Your task to perform on an android device: check out phone information Image 0: 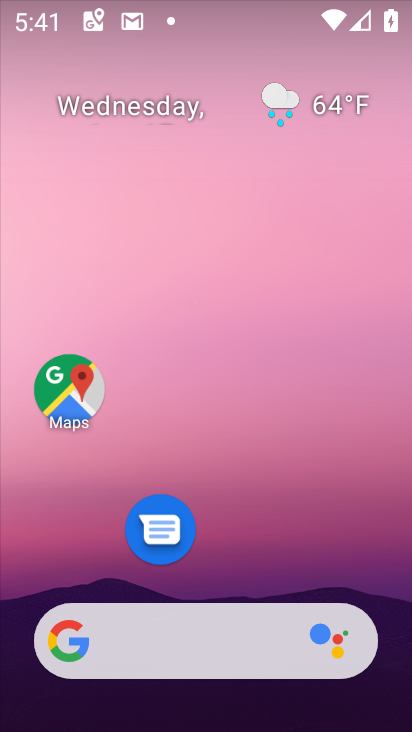
Step 0: drag from (213, 517) to (201, 178)
Your task to perform on an android device: check out phone information Image 1: 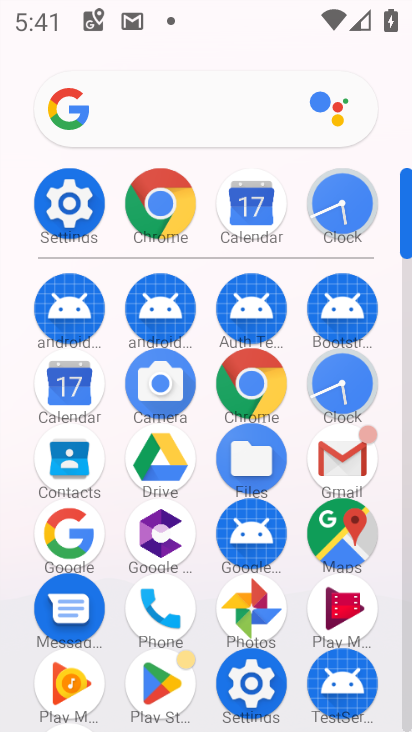
Step 1: click (77, 201)
Your task to perform on an android device: check out phone information Image 2: 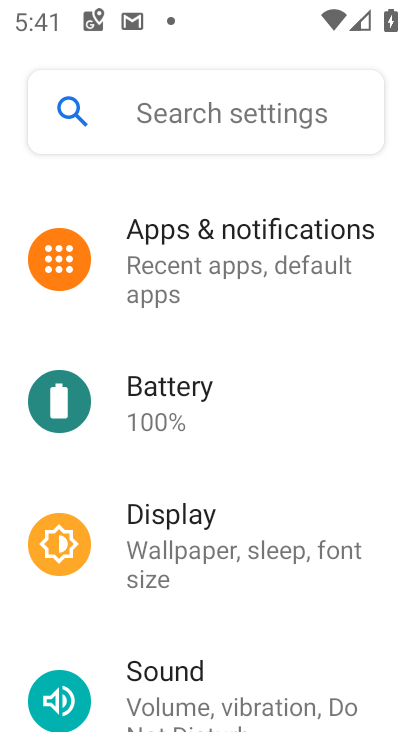
Step 2: drag from (237, 490) to (246, 257)
Your task to perform on an android device: check out phone information Image 3: 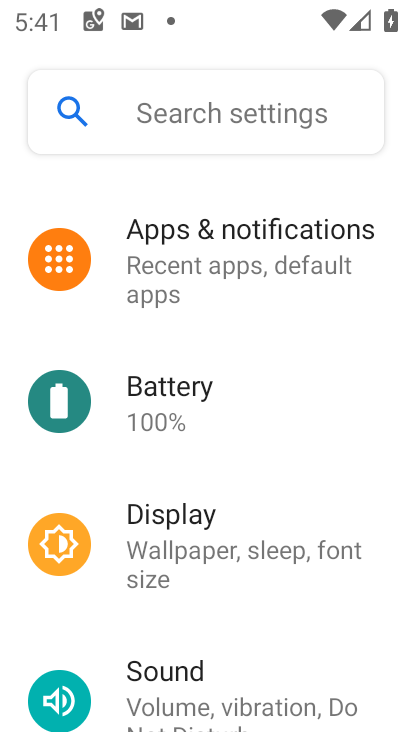
Step 3: drag from (176, 643) to (187, 276)
Your task to perform on an android device: check out phone information Image 4: 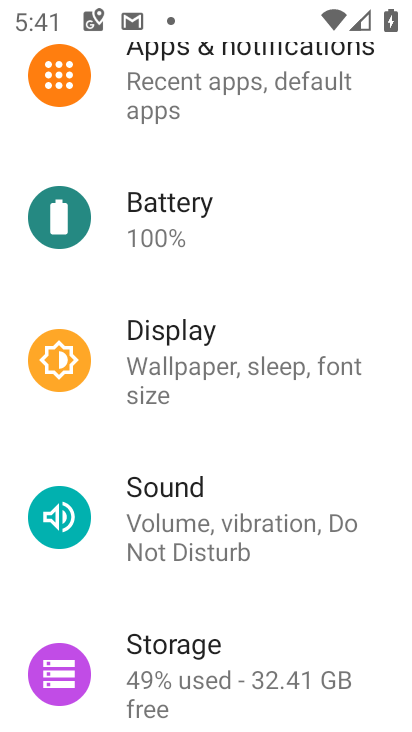
Step 4: drag from (214, 668) to (179, 173)
Your task to perform on an android device: check out phone information Image 5: 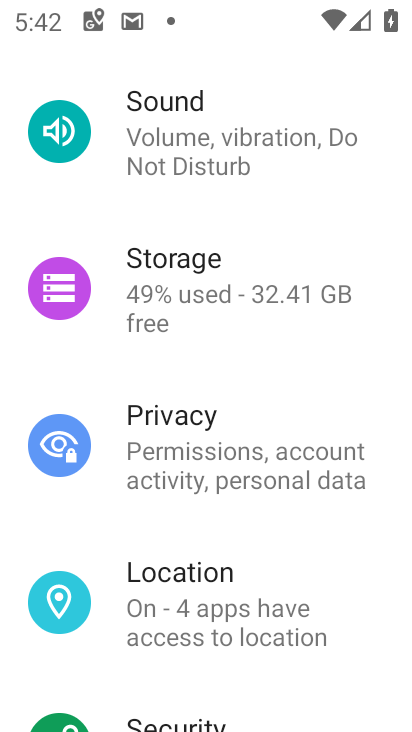
Step 5: drag from (231, 391) to (231, 233)
Your task to perform on an android device: check out phone information Image 6: 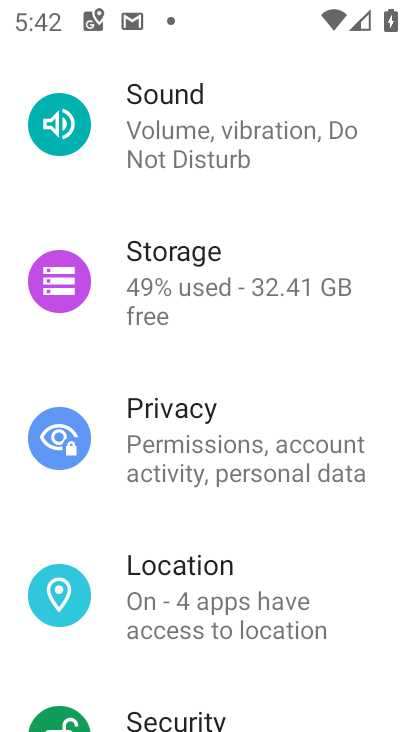
Step 6: drag from (195, 678) to (195, 278)
Your task to perform on an android device: check out phone information Image 7: 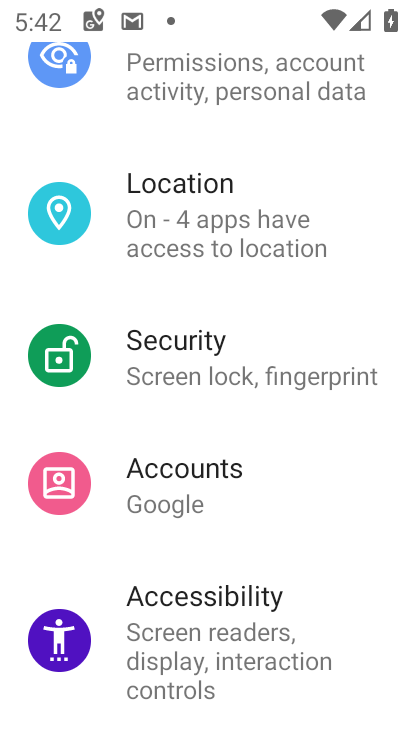
Step 7: drag from (341, 628) to (318, 388)
Your task to perform on an android device: check out phone information Image 8: 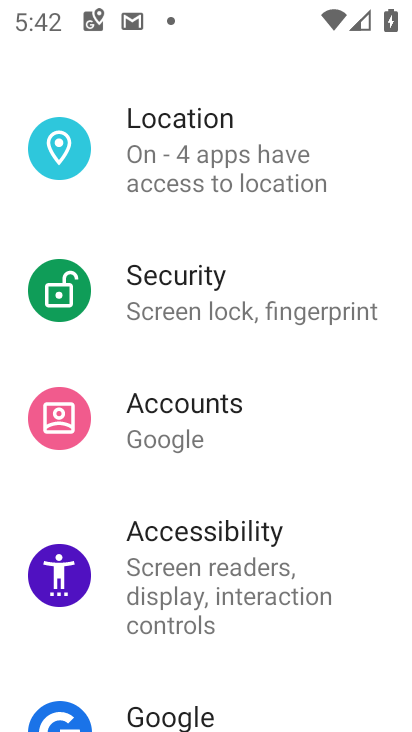
Step 8: drag from (246, 649) to (197, 241)
Your task to perform on an android device: check out phone information Image 9: 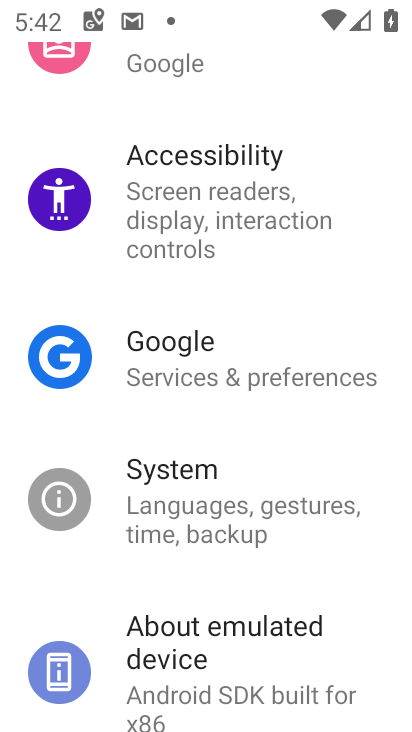
Step 9: click (173, 689)
Your task to perform on an android device: check out phone information Image 10: 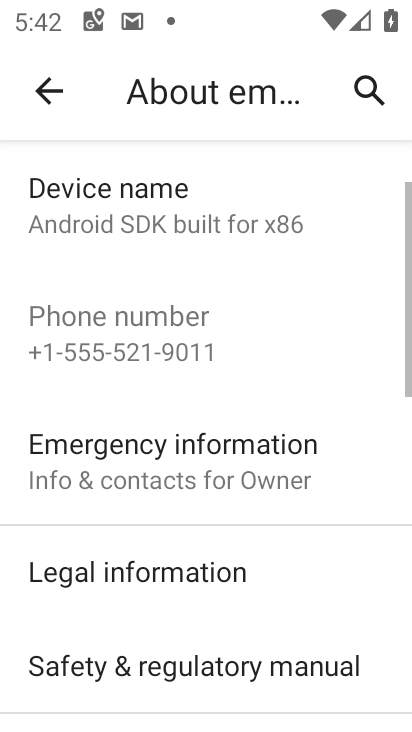
Step 10: task complete